Your task to perform on an android device: Open calendar and show me the fourth week of next month Image 0: 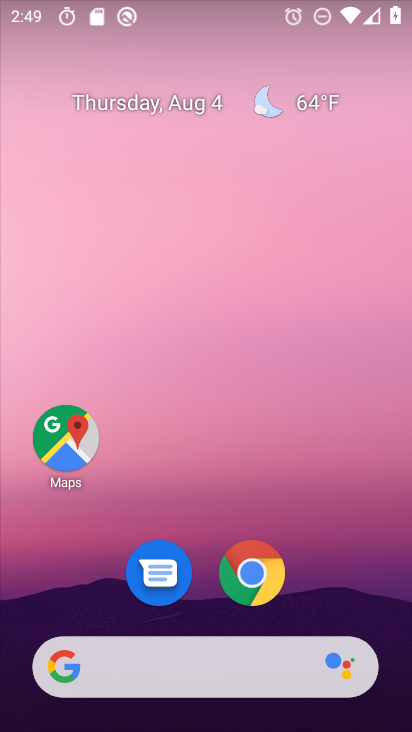
Step 0: drag from (299, 343) to (297, 78)
Your task to perform on an android device: Open calendar and show me the fourth week of next month Image 1: 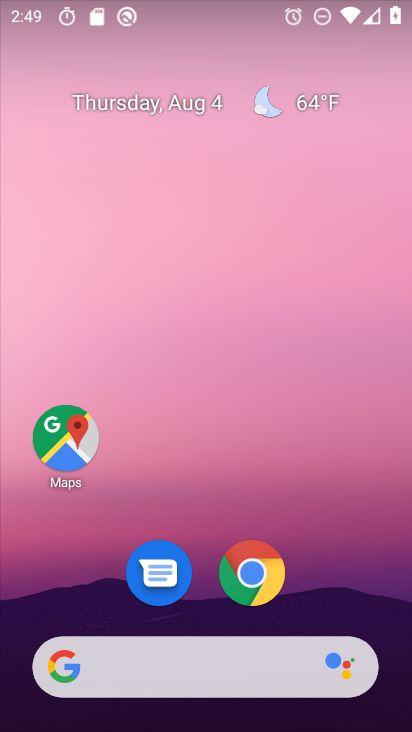
Step 1: drag from (356, 569) to (351, 152)
Your task to perform on an android device: Open calendar and show me the fourth week of next month Image 2: 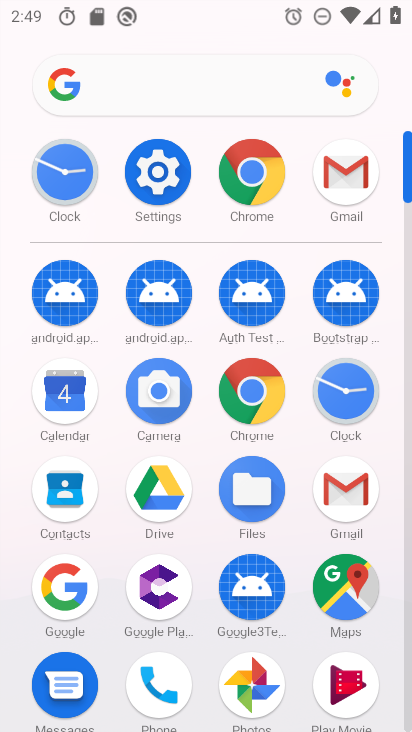
Step 2: click (69, 409)
Your task to perform on an android device: Open calendar and show me the fourth week of next month Image 3: 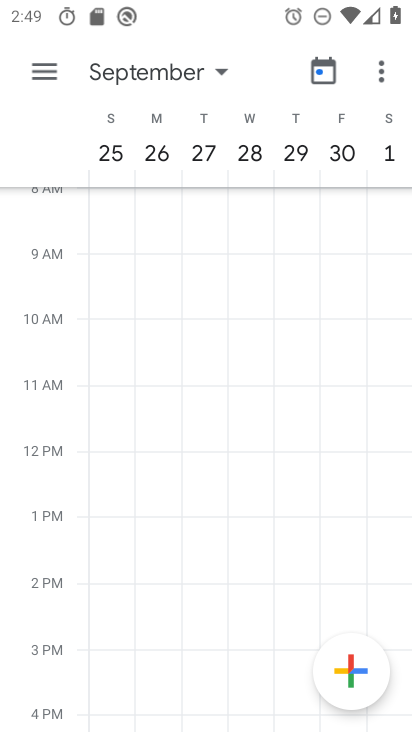
Step 3: task complete